Your task to perform on an android device: toggle priority inbox in the gmail app Image 0: 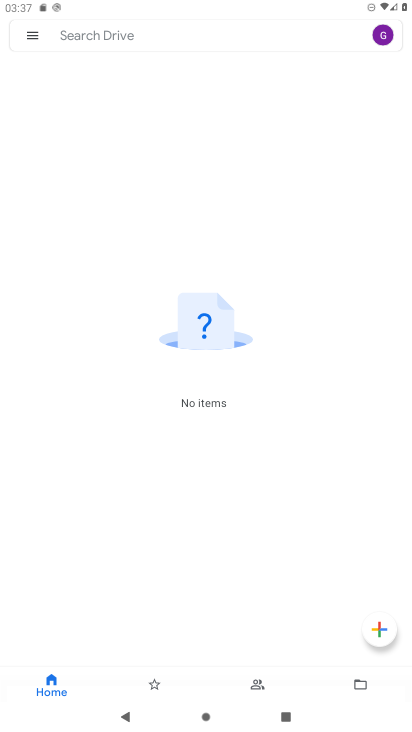
Step 0: press home button
Your task to perform on an android device: toggle priority inbox in the gmail app Image 1: 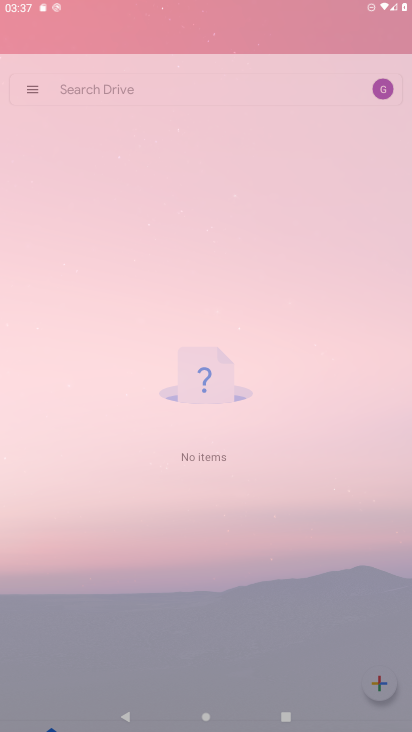
Step 1: drag from (160, 628) to (304, 2)
Your task to perform on an android device: toggle priority inbox in the gmail app Image 2: 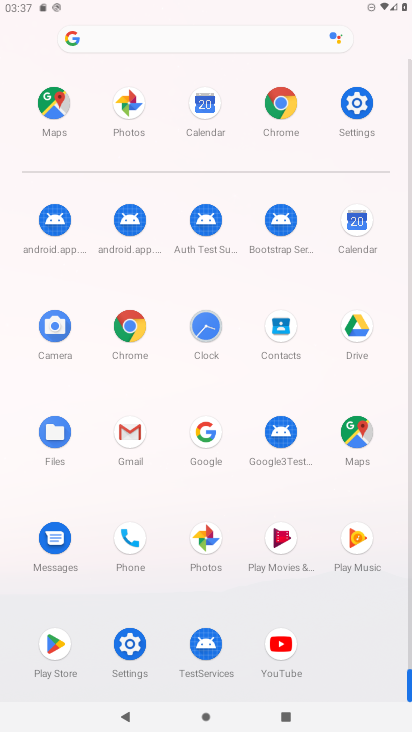
Step 2: click (119, 459)
Your task to perform on an android device: toggle priority inbox in the gmail app Image 3: 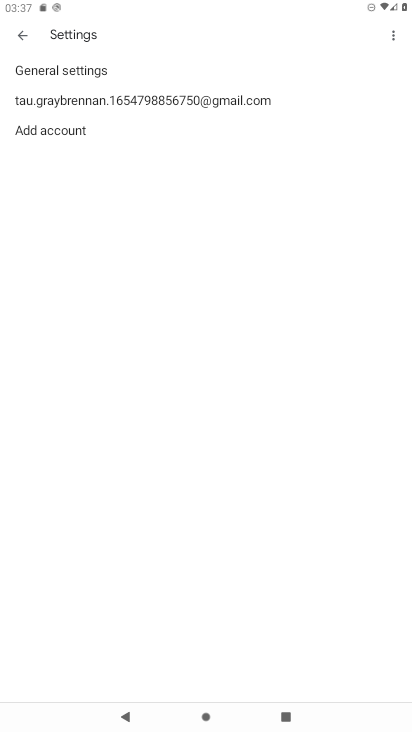
Step 3: click (64, 100)
Your task to perform on an android device: toggle priority inbox in the gmail app Image 4: 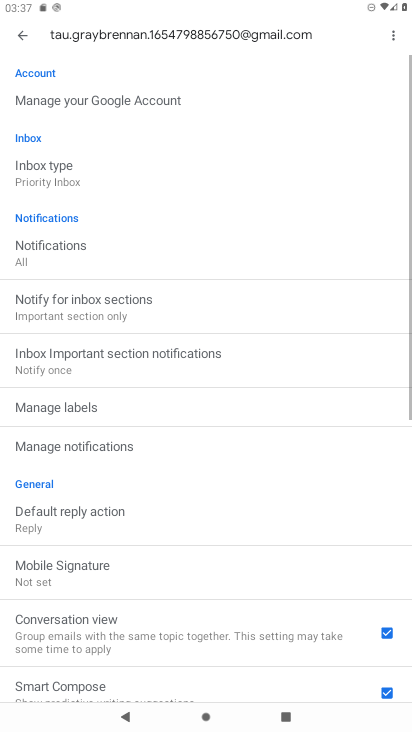
Step 4: click (51, 192)
Your task to perform on an android device: toggle priority inbox in the gmail app Image 5: 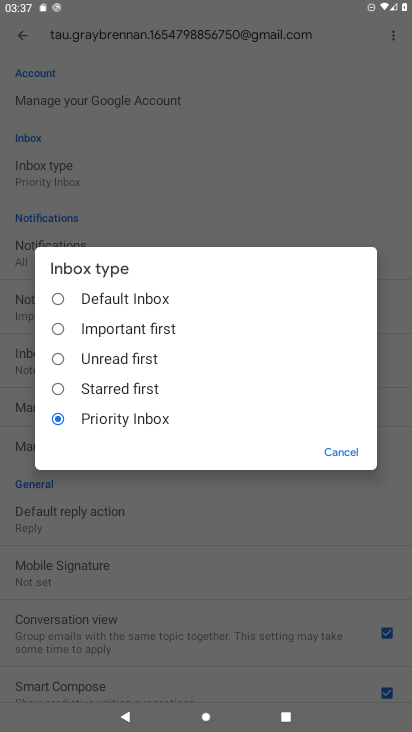
Step 5: click (79, 299)
Your task to perform on an android device: toggle priority inbox in the gmail app Image 6: 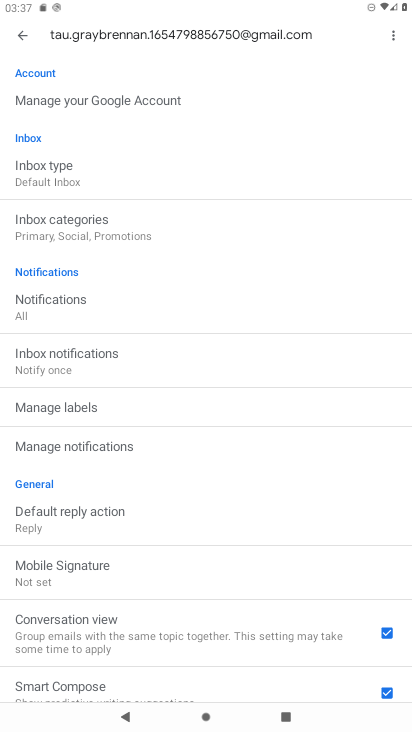
Step 6: task complete